Your task to perform on an android device: turn pop-ups on in chrome Image 0: 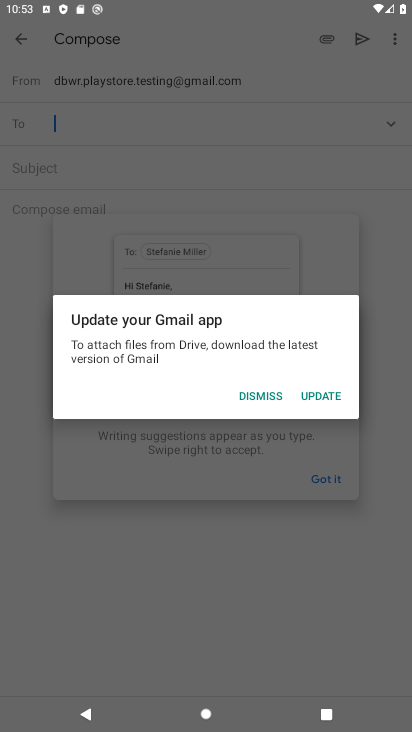
Step 0: task complete